Your task to perform on an android device: Set the phone to "Do not disturb". Image 0: 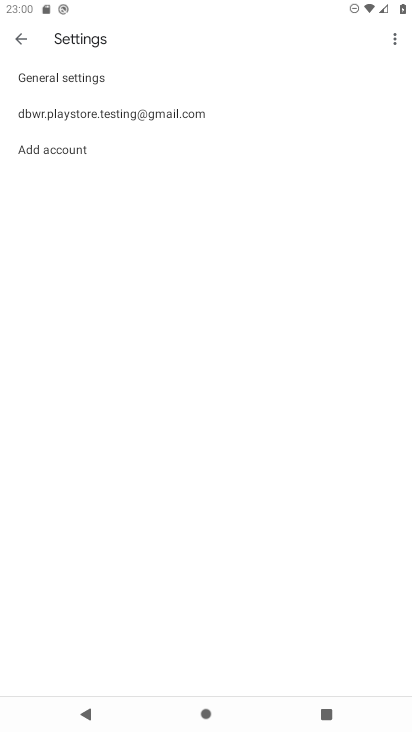
Step 0: press home button
Your task to perform on an android device: Set the phone to "Do not disturb". Image 1: 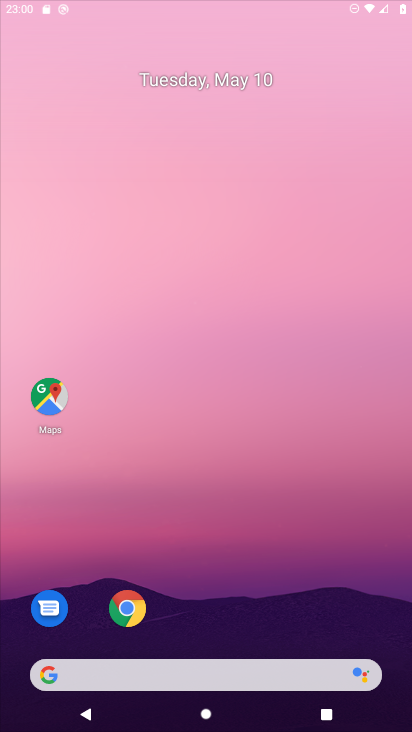
Step 1: drag from (247, 12) to (193, 644)
Your task to perform on an android device: Set the phone to "Do not disturb". Image 2: 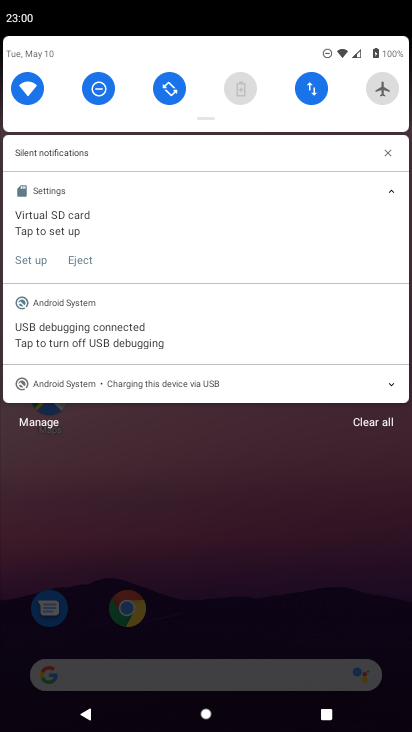
Step 2: click (100, 85)
Your task to perform on an android device: Set the phone to "Do not disturb". Image 3: 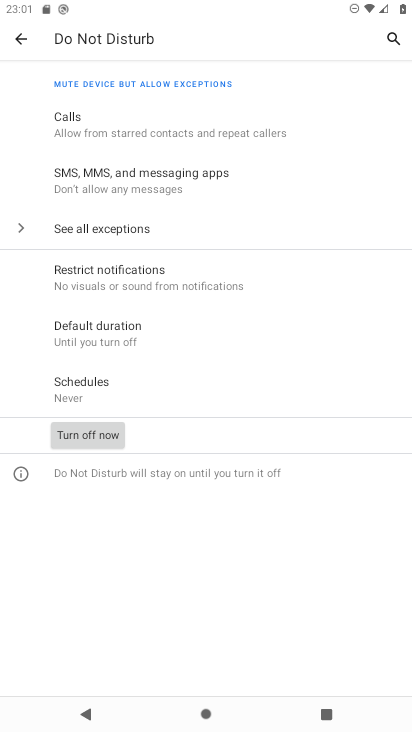
Step 3: click (86, 430)
Your task to perform on an android device: Set the phone to "Do not disturb". Image 4: 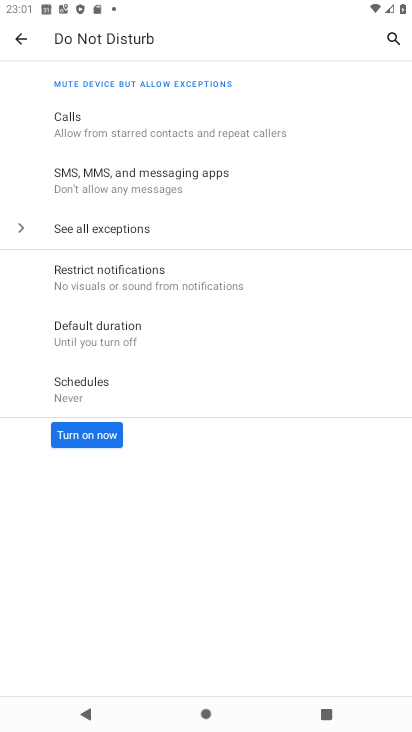
Step 4: task complete